Your task to perform on an android device: turn on location history Image 0: 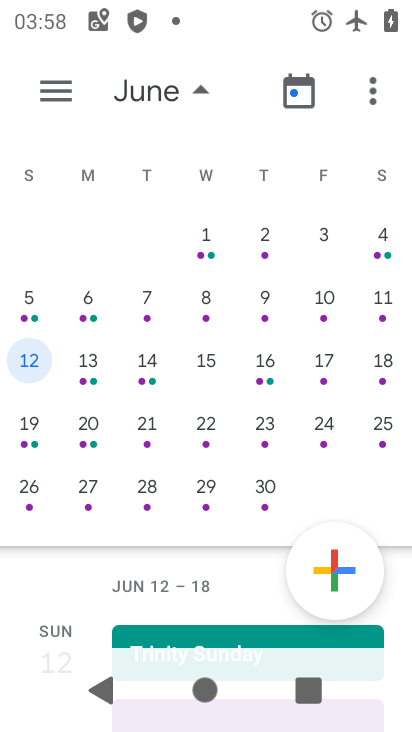
Step 0: press home button
Your task to perform on an android device: turn on location history Image 1: 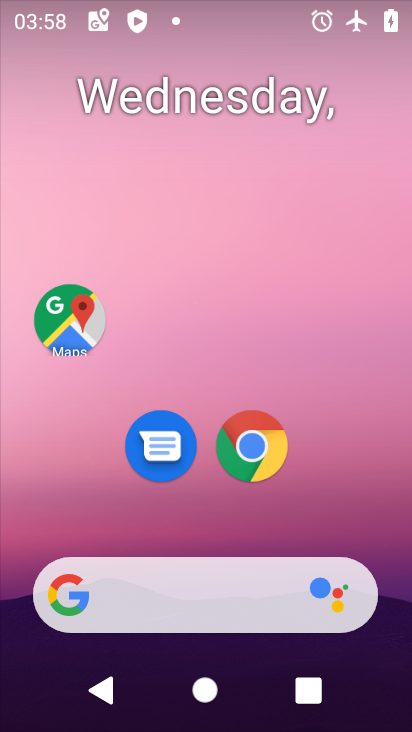
Step 1: drag from (193, 530) to (221, 119)
Your task to perform on an android device: turn on location history Image 2: 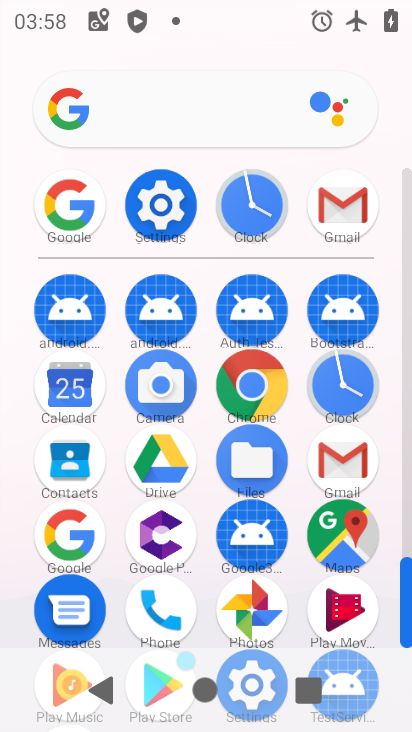
Step 2: click (174, 204)
Your task to perform on an android device: turn on location history Image 3: 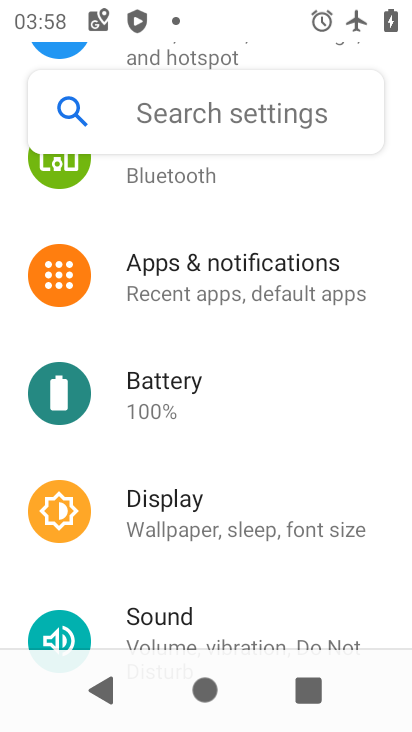
Step 3: drag from (205, 582) to (235, 252)
Your task to perform on an android device: turn on location history Image 4: 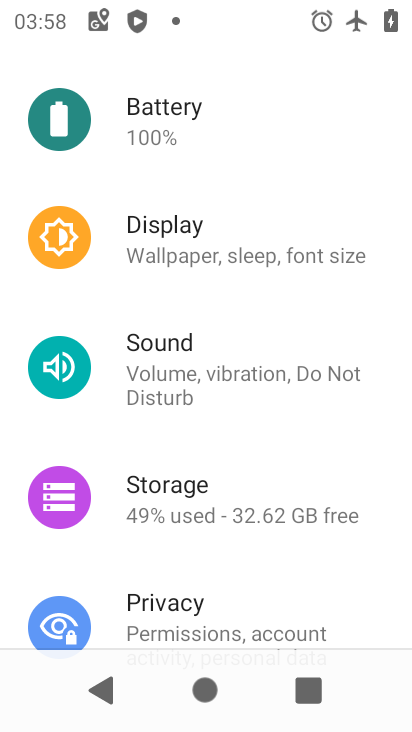
Step 4: drag from (239, 598) to (261, 230)
Your task to perform on an android device: turn on location history Image 5: 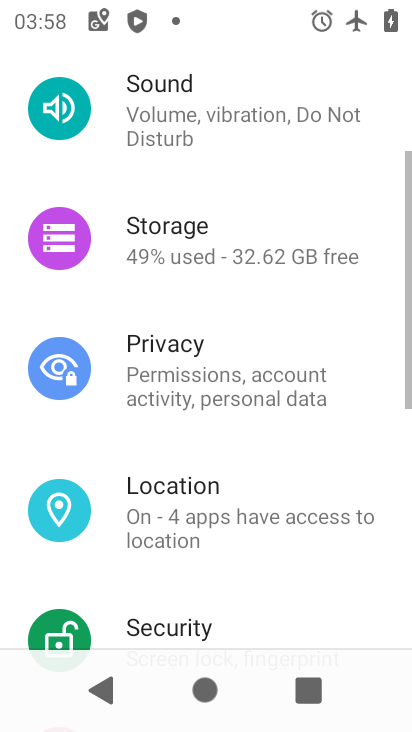
Step 5: click (258, 508)
Your task to perform on an android device: turn on location history Image 6: 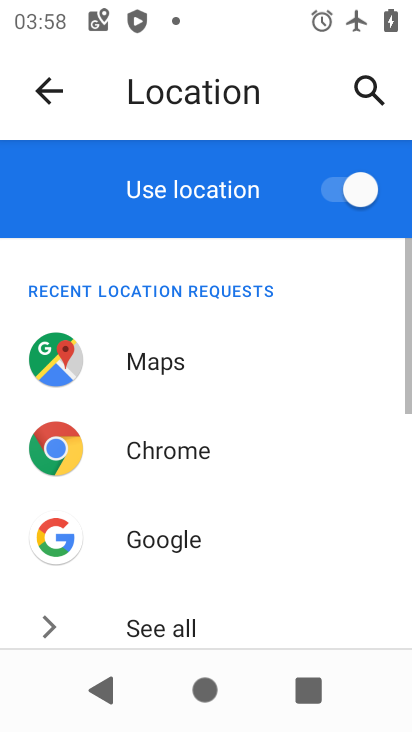
Step 6: drag from (245, 574) to (243, 278)
Your task to perform on an android device: turn on location history Image 7: 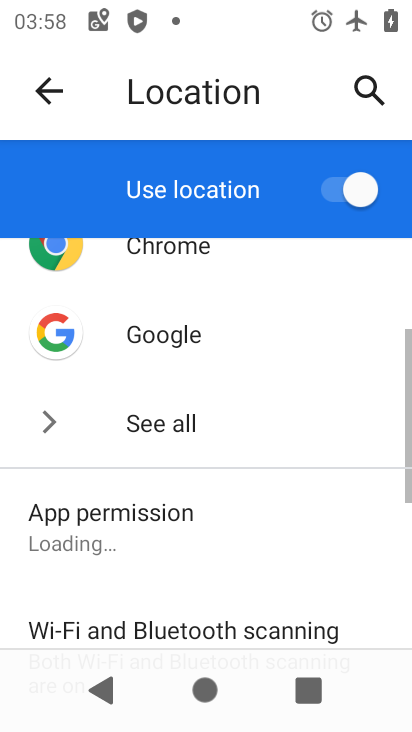
Step 7: drag from (259, 517) to (240, 224)
Your task to perform on an android device: turn on location history Image 8: 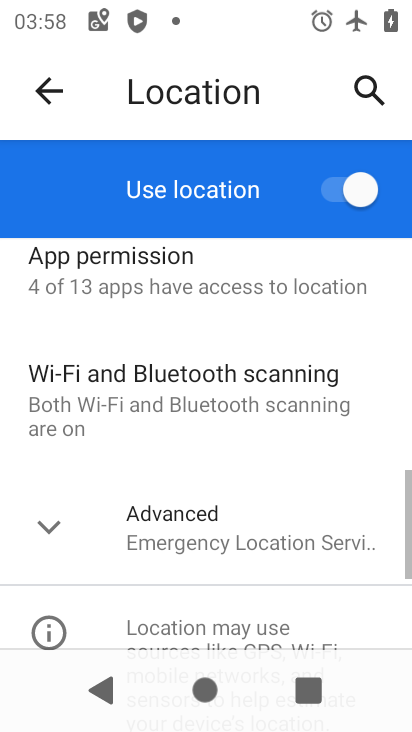
Step 8: drag from (239, 519) to (236, 336)
Your task to perform on an android device: turn on location history Image 9: 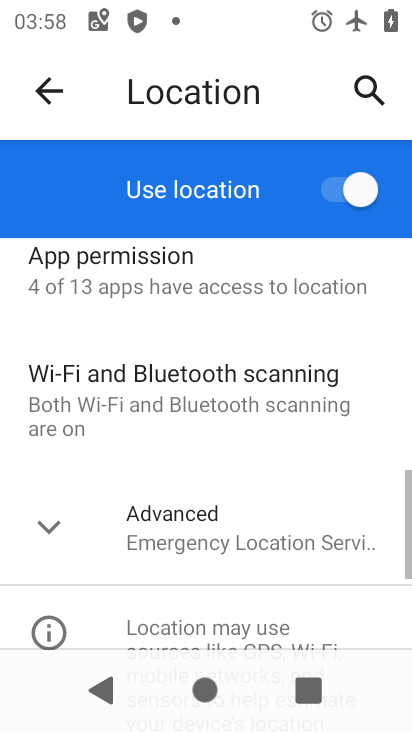
Step 9: click (245, 509)
Your task to perform on an android device: turn on location history Image 10: 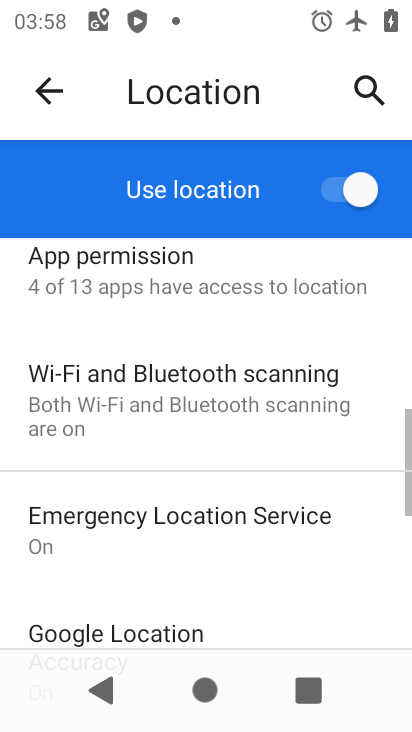
Step 10: drag from (246, 501) to (268, 257)
Your task to perform on an android device: turn on location history Image 11: 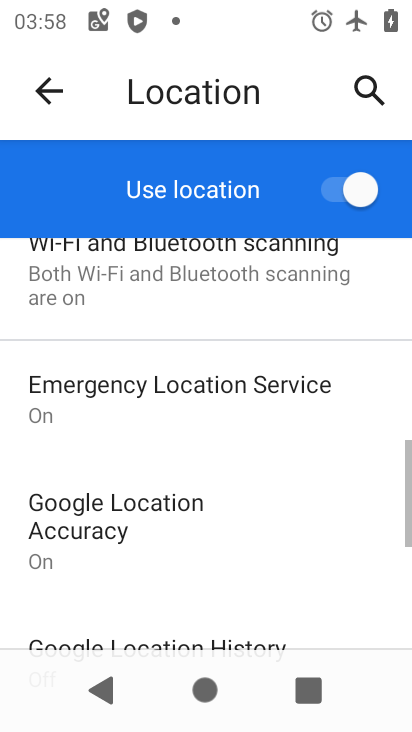
Step 11: drag from (228, 587) to (234, 345)
Your task to perform on an android device: turn on location history Image 12: 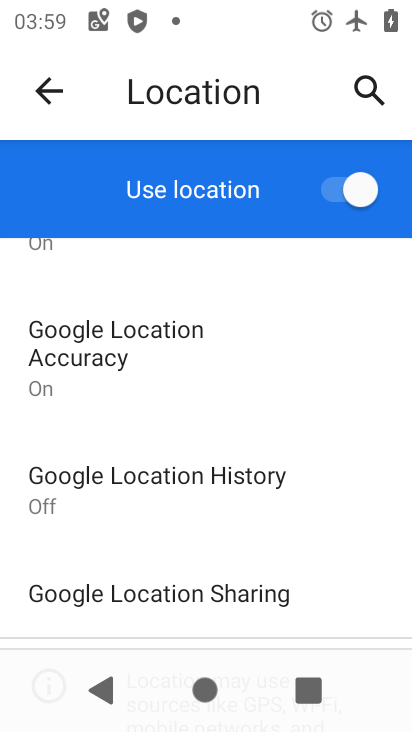
Step 12: click (241, 471)
Your task to perform on an android device: turn on location history Image 13: 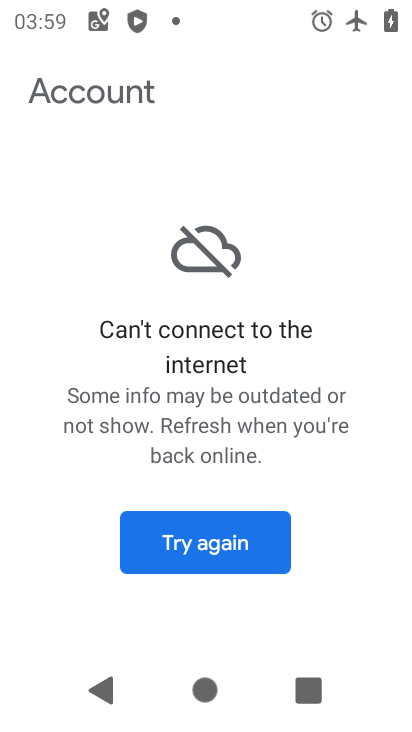
Step 13: task complete